Your task to perform on an android device: clear history in the chrome app Image 0: 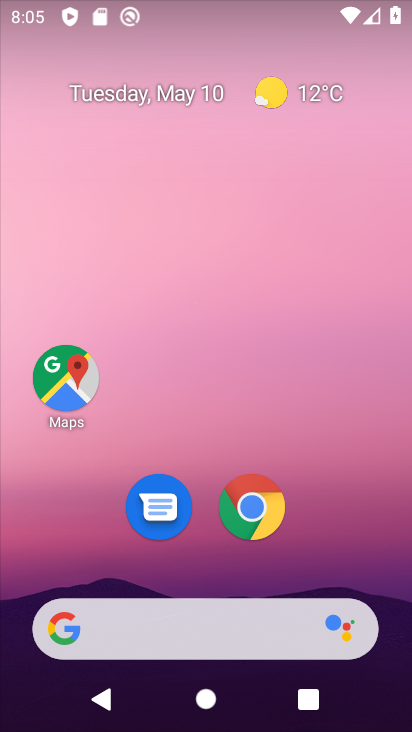
Step 0: click (262, 526)
Your task to perform on an android device: clear history in the chrome app Image 1: 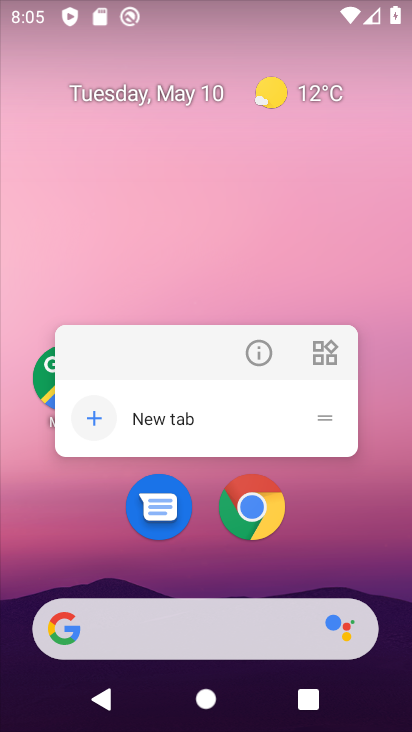
Step 1: click (265, 523)
Your task to perform on an android device: clear history in the chrome app Image 2: 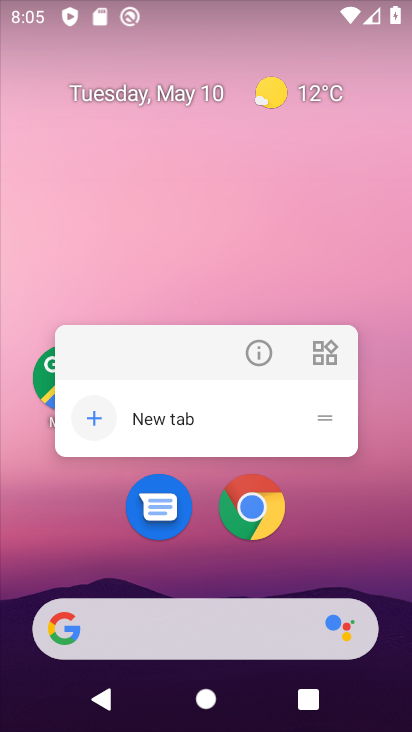
Step 2: click (268, 496)
Your task to perform on an android device: clear history in the chrome app Image 3: 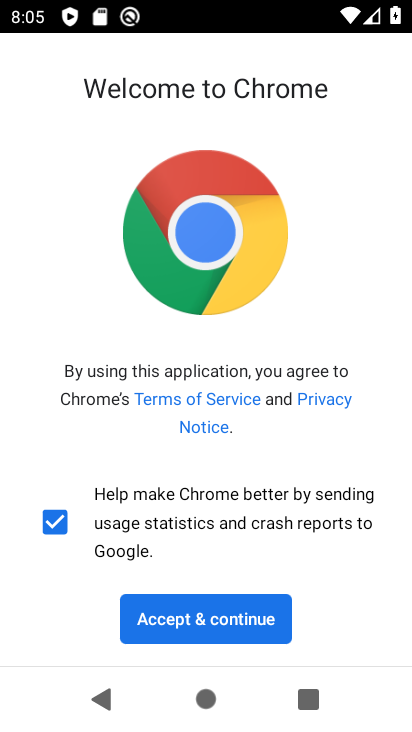
Step 3: click (222, 615)
Your task to perform on an android device: clear history in the chrome app Image 4: 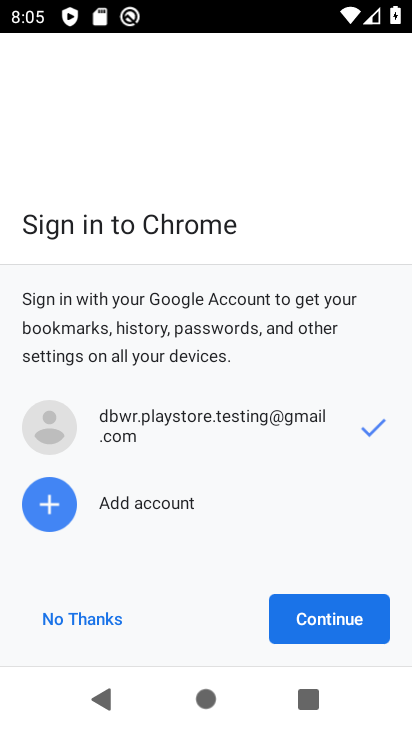
Step 4: click (322, 616)
Your task to perform on an android device: clear history in the chrome app Image 5: 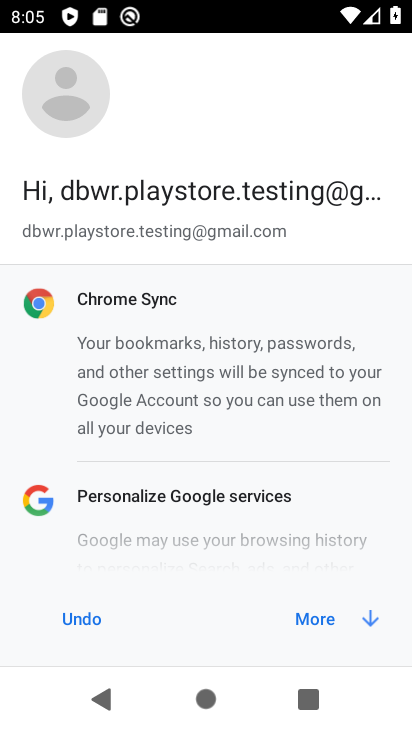
Step 5: click (345, 624)
Your task to perform on an android device: clear history in the chrome app Image 6: 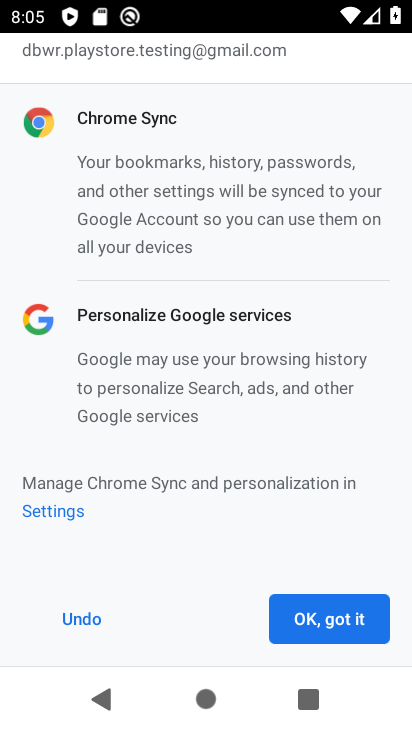
Step 6: click (345, 624)
Your task to perform on an android device: clear history in the chrome app Image 7: 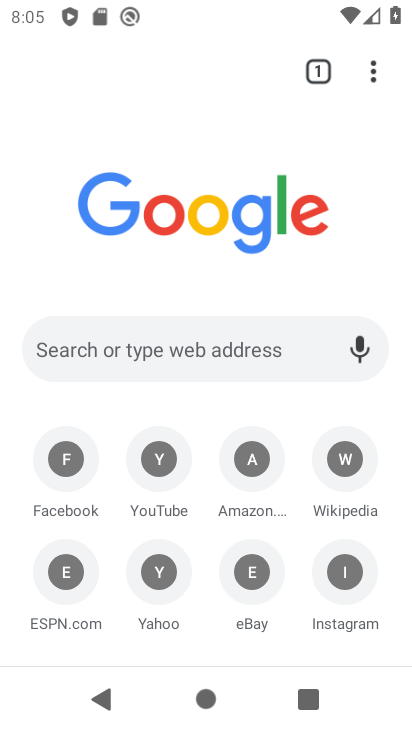
Step 7: drag from (387, 77) to (205, 406)
Your task to perform on an android device: clear history in the chrome app Image 8: 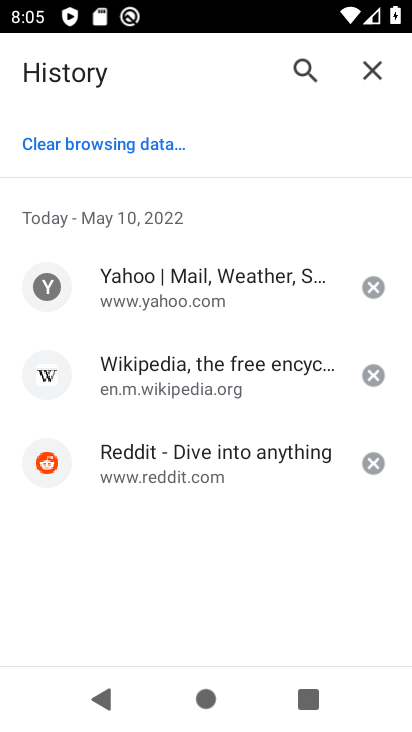
Step 8: click (130, 144)
Your task to perform on an android device: clear history in the chrome app Image 9: 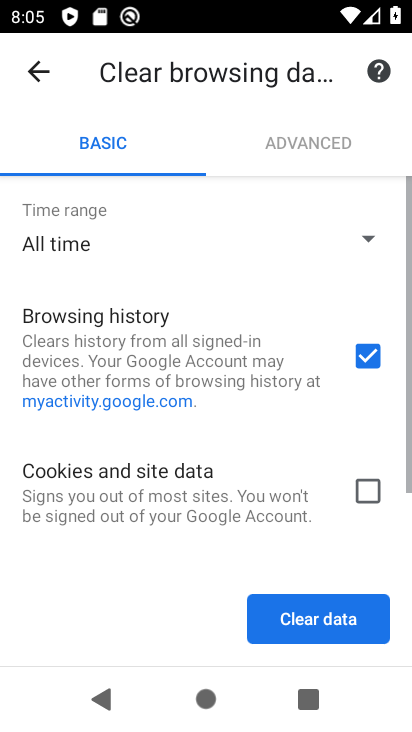
Step 9: click (351, 605)
Your task to perform on an android device: clear history in the chrome app Image 10: 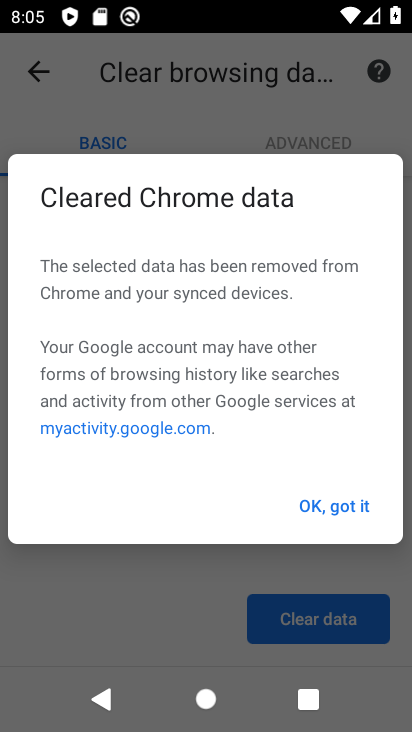
Step 10: click (357, 468)
Your task to perform on an android device: clear history in the chrome app Image 11: 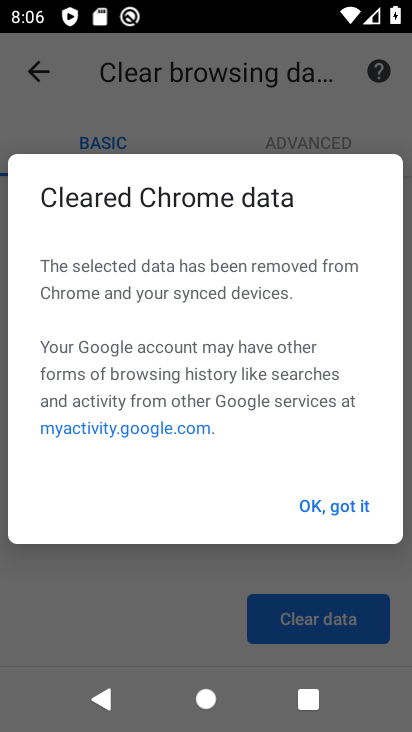
Step 11: click (344, 518)
Your task to perform on an android device: clear history in the chrome app Image 12: 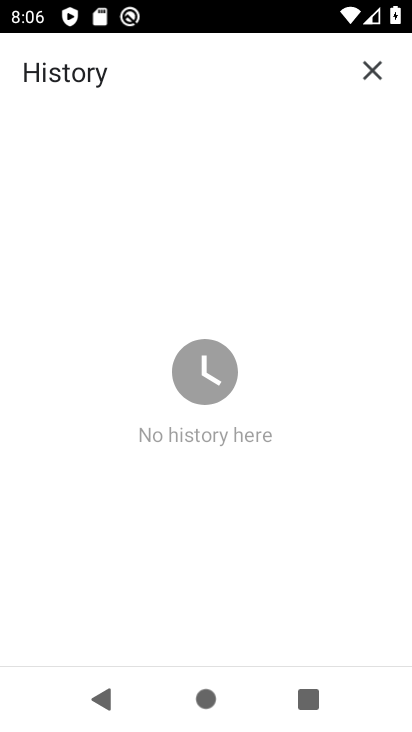
Step 12: task complete